Your task to perform on an android device: Open network settings Image 0: 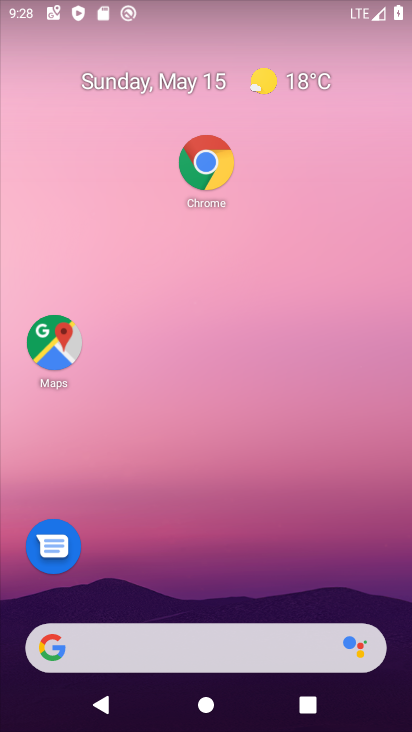
Step 0: drag from (281, 571) to (302, 253)
Your task to perform on an android device: Open network settings Image 1: 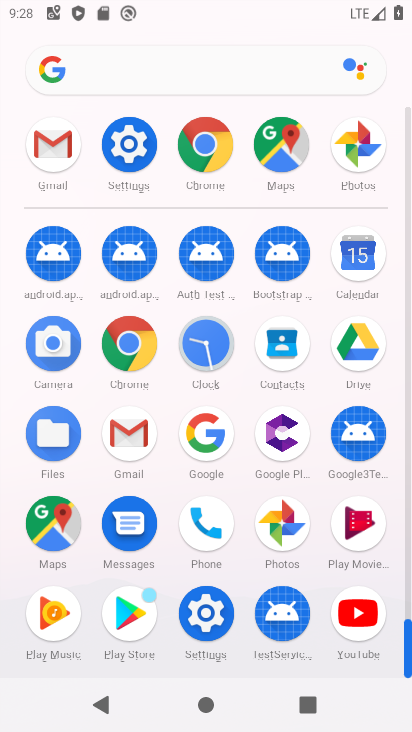
Step 1: click (127, 143)
Your task to perform on an android device: Open network settings Image 2: 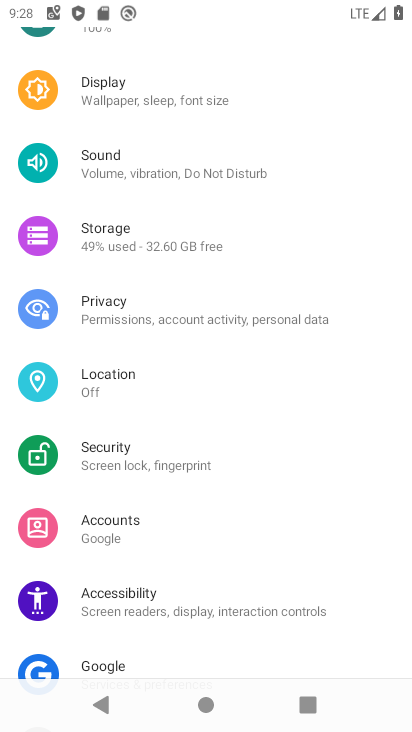
Step 2: drag from (169, 150) to (166, 625)
Your task to perform on an android device: Open network settings Image 3: 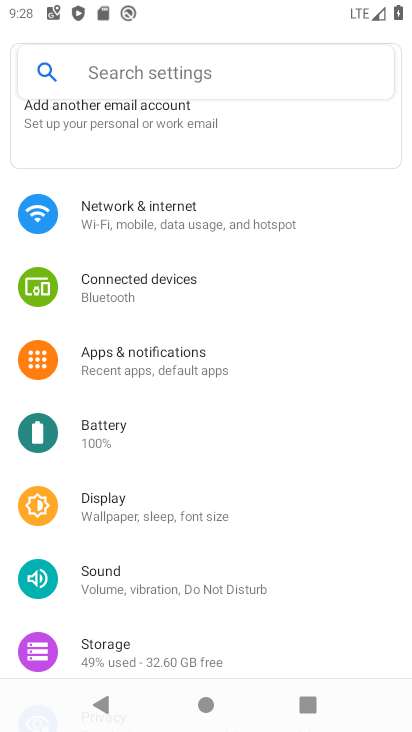
Step 3: click (118, 209)
Your task to perform on an android device: Open network settings Image 4: 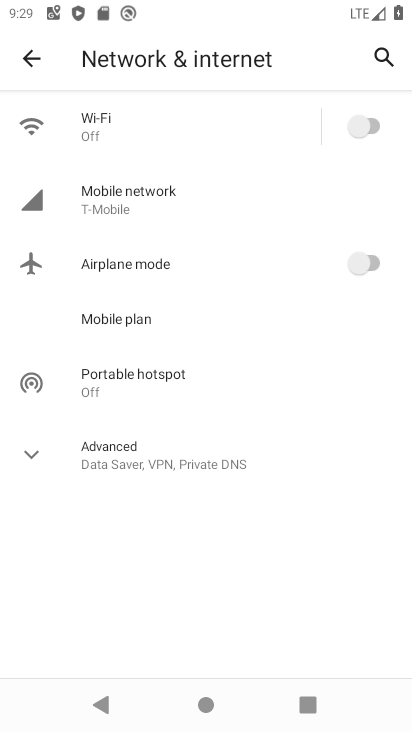
Step 4: task complete